Your task to perform on an android device: turn on improve location accuracy Image 0: 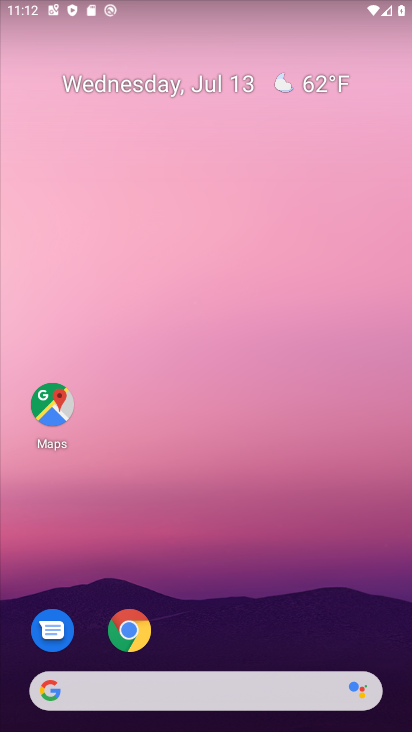
Step 0: drag from (300, 543) to (391, 0)
Your task to perform on an android device: turn on improve location accuracy Image 1: 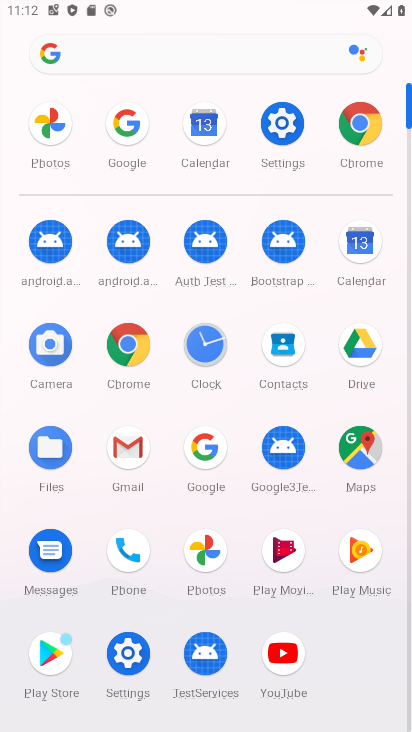
Step 1: click (283, 128)
Your task to perform on an android device: turn on improve location accuracy Image 2: 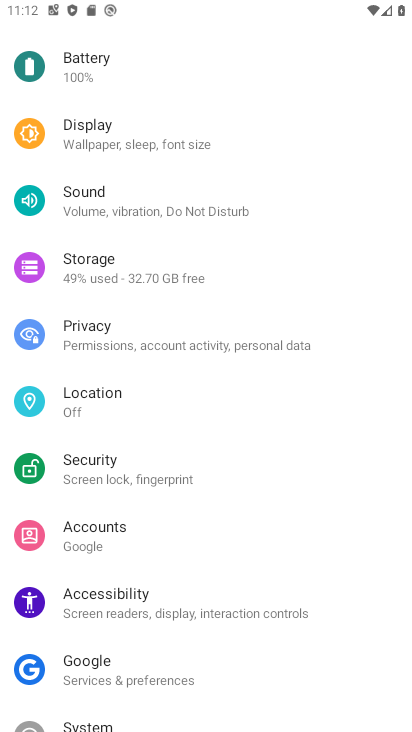
Step 2: click (58, 405)
Your task to perform on an android device: turn on improve location accuracy Image 3: 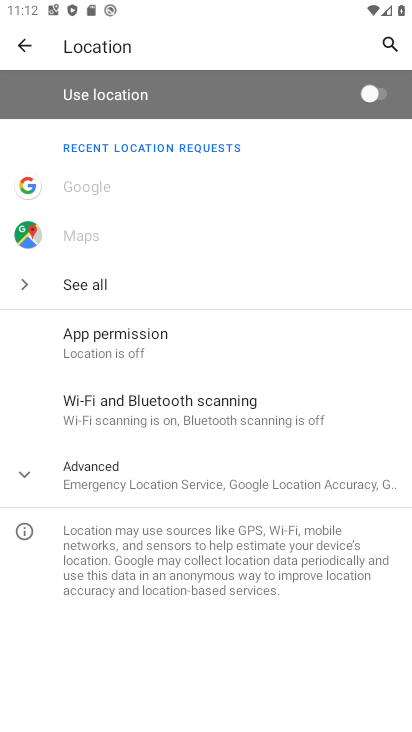
Step 3: click (103, 472)
Your task to perform on an android device: turn on improve location accuracy Image 4: 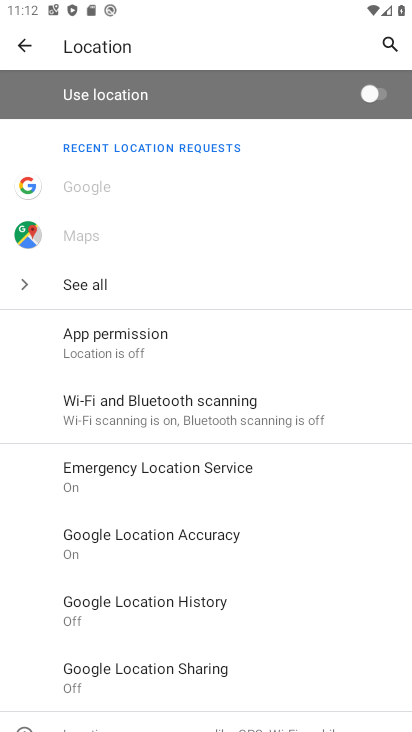
Step 4: click (132, 527)
Your task to perform on an android device: turn on improve location accuracy Image 5: 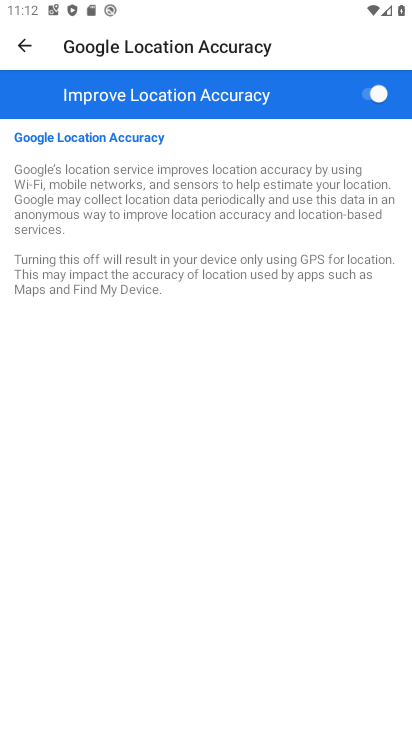
Step 5: task complete